Your task to perform on an android device: delete a single message in the gmail app Image 0: 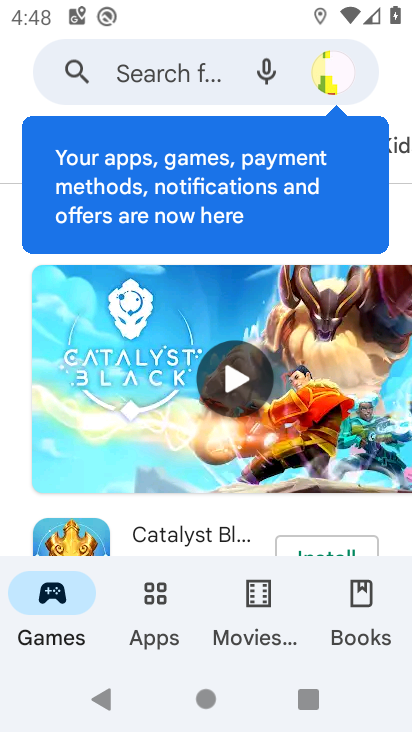
Step 0: press home button
Your task to perform on an android device: delete a single message in the gmail app Image 1: 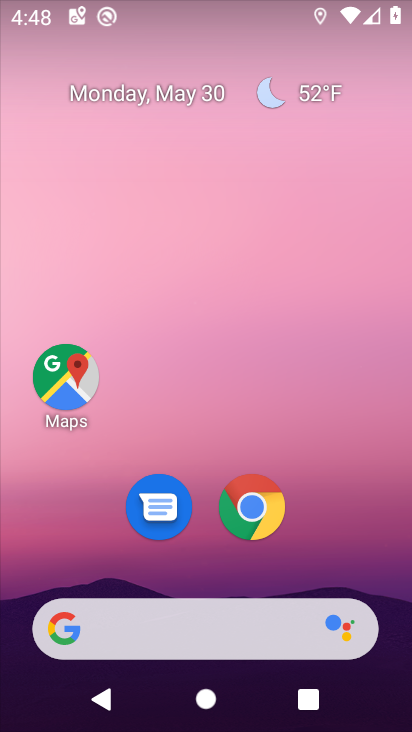
Step 1: drag from (304, 570) to (325, 89)
Your task to perform on an android device: delete a single message in the gmail app Image 2: 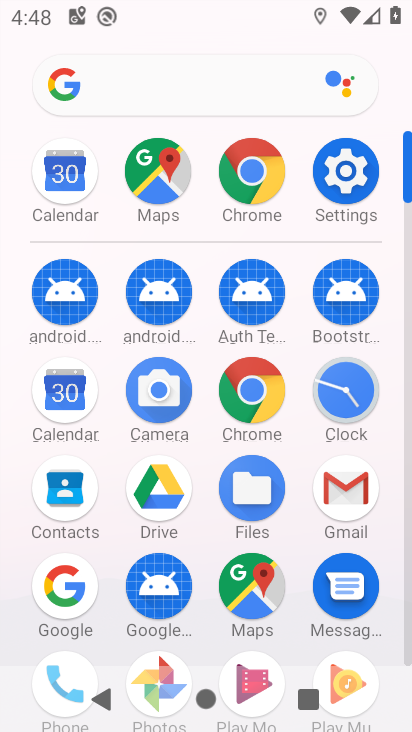
Step 2: click (307, 499)
Your task to perform on an android device: delete a single message in the gmail app Image 3: 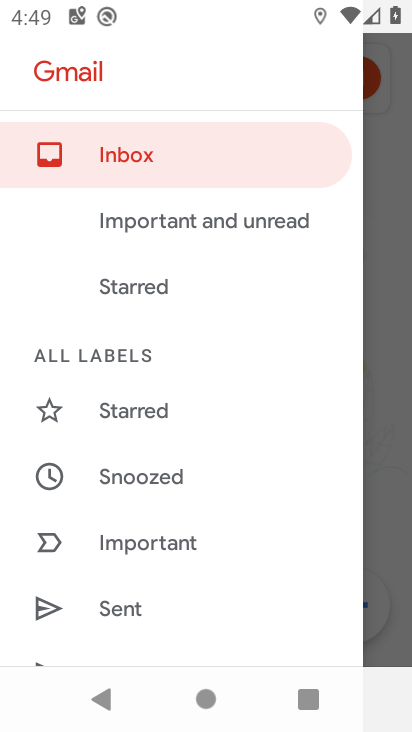
Step 3: task complete